Your task to perform on an android device: Open sound settings Image 0: 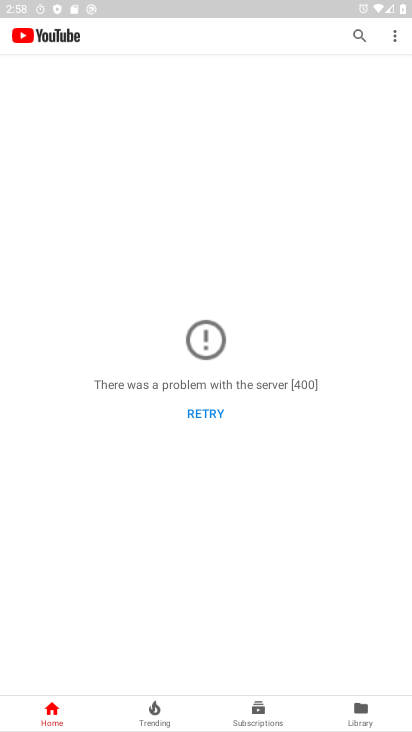
Step 0: press home button
Your task to perform on an android device: Open sound settings Image 1: 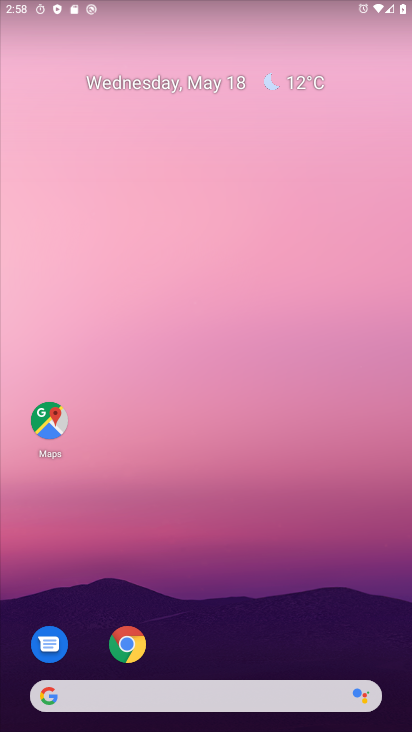
Step 1: drag from (381, 650) to (286, 236)
Your task to perform on an android device: Open sound settings Image 2: 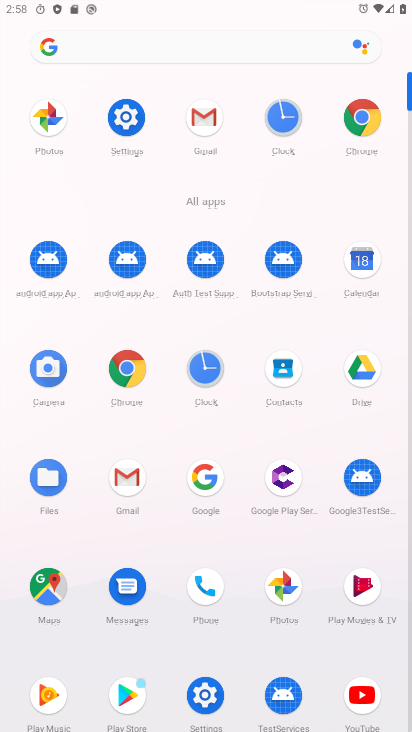
Step 2: click (120, 114)
Your task to perform on an android device: Open sound settings Image 3: 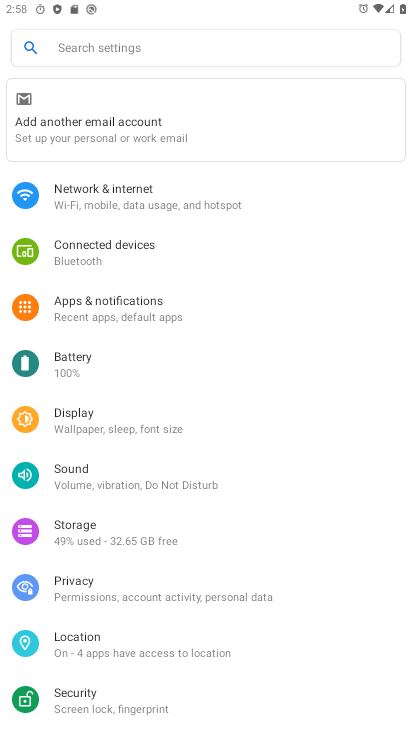
Step 3: click (99, 478)
Your task to perform on an android device: Open sound settings Image 4: 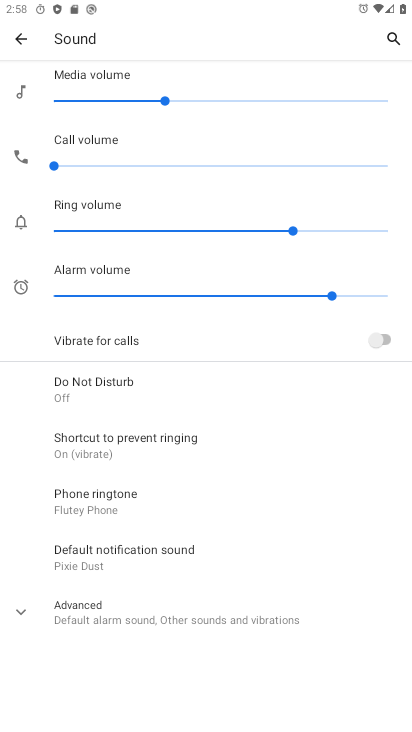
Step 4: task complete